Your task to perform on an android device: Clear the shopping cart on newegg. Search for macbook on newegg, select the first entry, add it to the cart, then select checkout. Image 0: 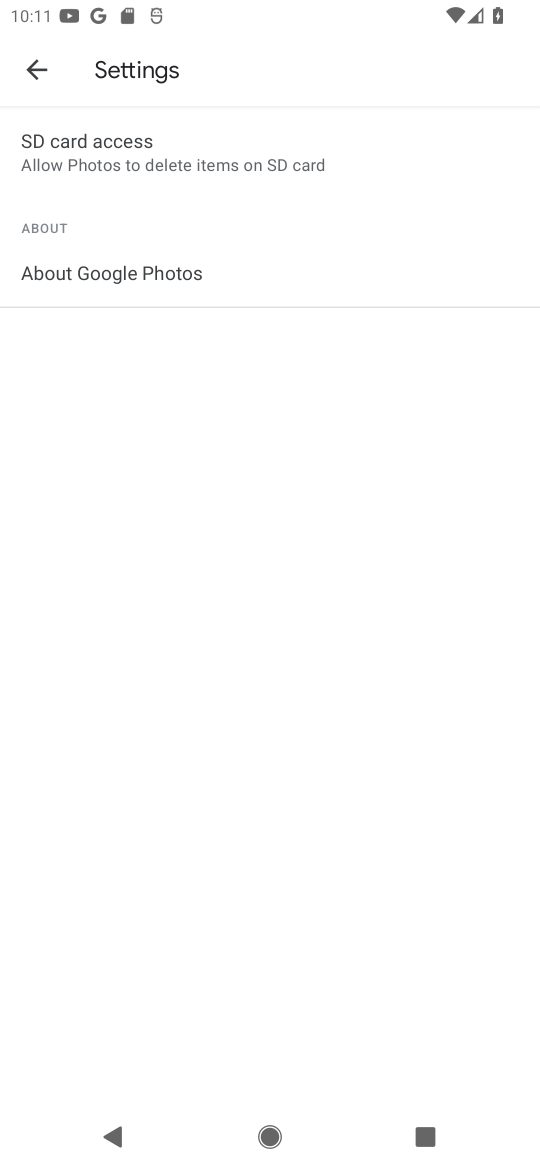
Step 0: press home button
Your task to perform on an android device: Clear the shopping cart on newegg. Search for macbook on newegg, select the first entry, add it to the cart, then select checkout. Image 1: 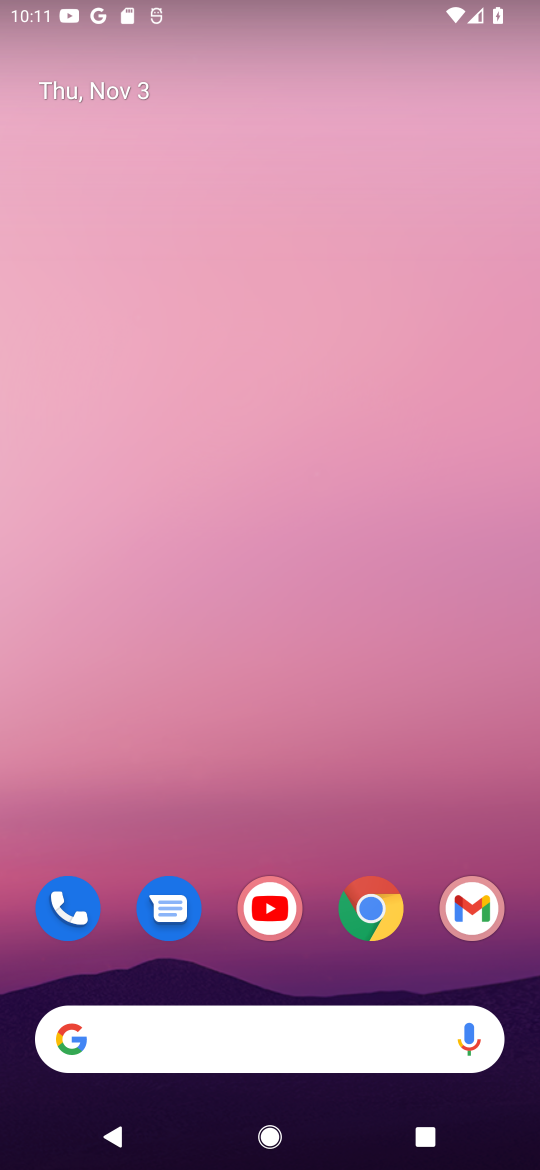
Step 1: click (375, 902)
Your task to perform on an android device: Clear the shopping cart on newegg. Search for macbook on newegg, select the first entry, add it to the cart, then select checkout. Image 2: 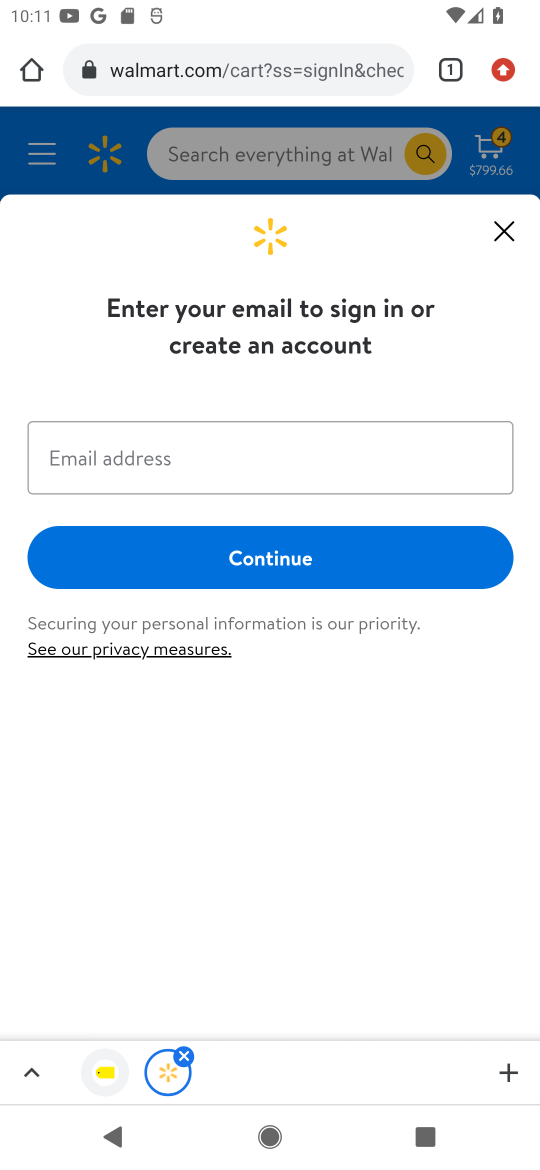
Step 2: click (28, 61)
Your task to perform on an android device: Clear the shopping cart on newegg. Search for macbook on newegg, select the first entry, add it to the cart, then select checkout. Image 3: 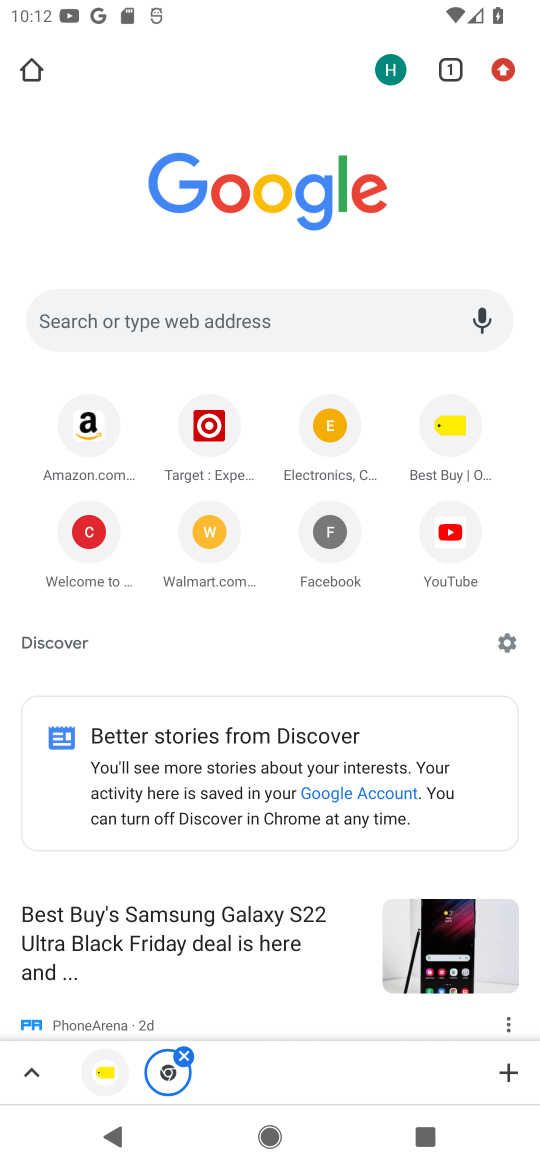
Step 3: click (194, 315)
Your task to perform on an android device: Clear the shopping cart on newegg. Search for macbook on newegg, select the first entry, add it to the cart, then select checkout. Image 4: 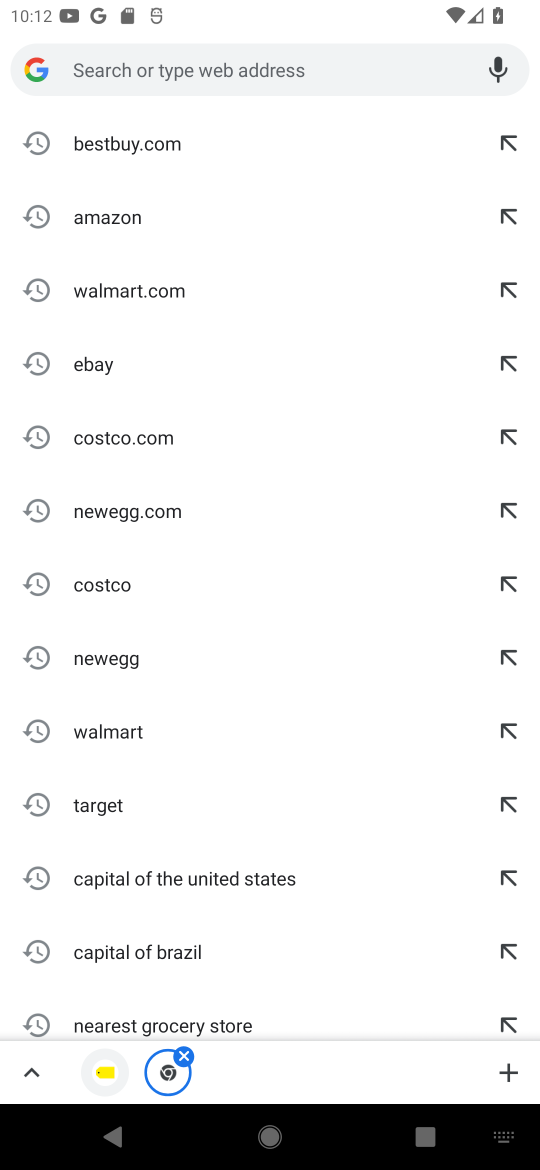
Step 4: click (138, 505)
Your task to perform on an android device: Clear the shopping cart on newegg. Search for macbook on newegg, select the first entry, add it to the cart, then select checkout. Image 5: 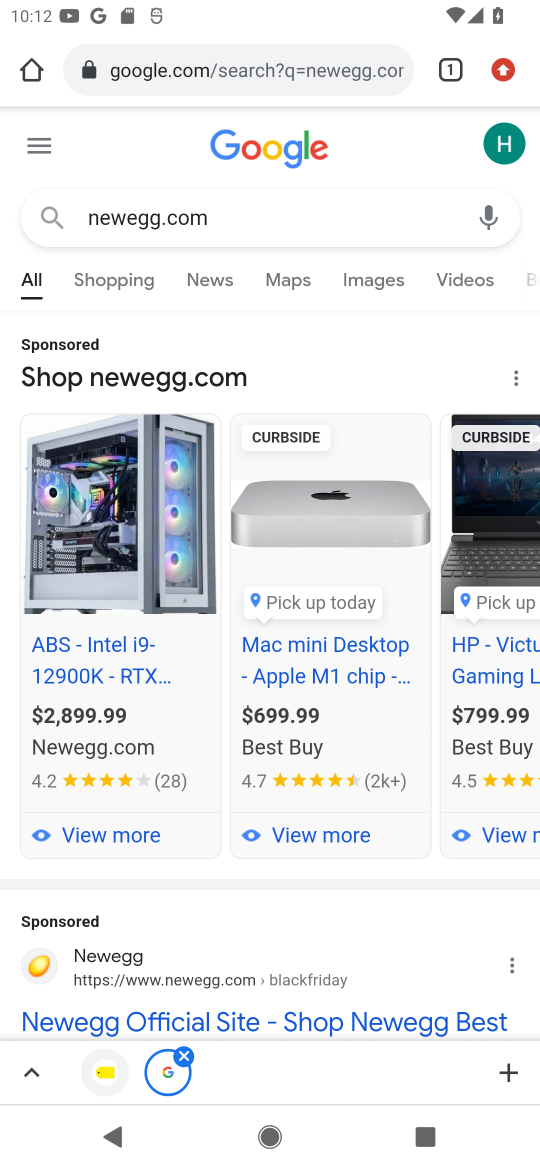
Step 5: click (216, 976)
Your task to perform on an android device: Clear the shopping cart on newegg. Search for macbook on newegg, select the first entry, add it to the cart, then select checkout. Image 6: 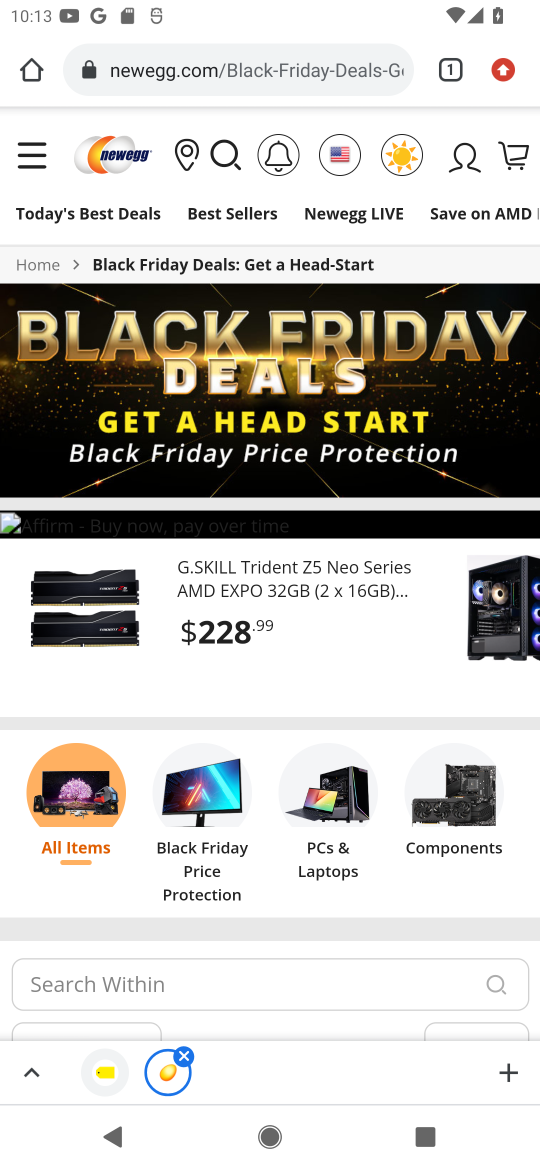
Step 6: click (226, 146)
Your task to perform on an android device: Clear the shopping cart on newegg. Search for macbook on newegg, select the first entry, add it to the cart, then select checkout. Image 7: 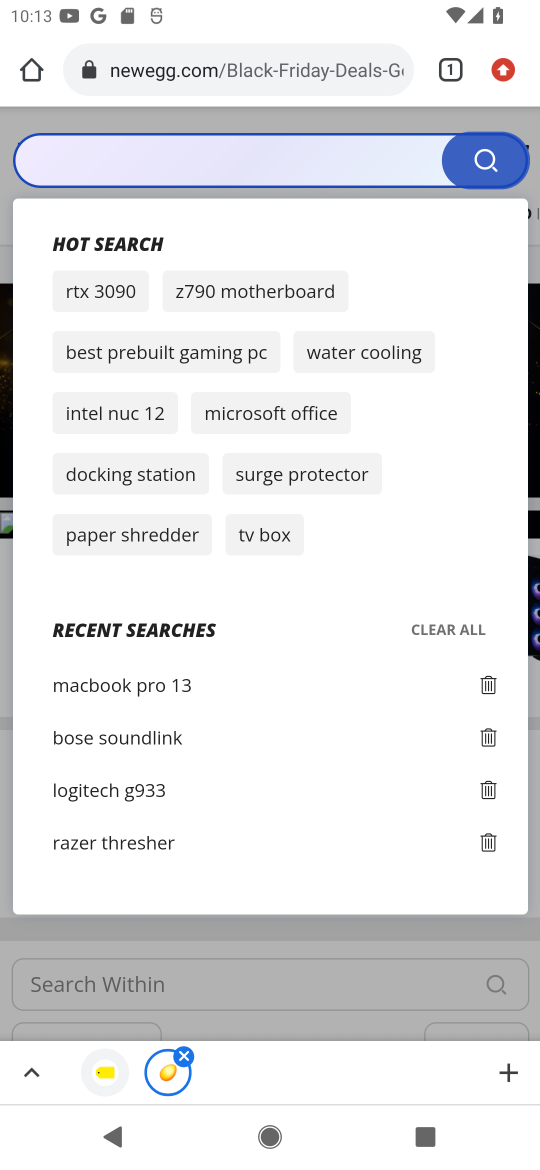
Step 7: click (368, 993)
Your task to perform on an android device: Clear the shopping cart on newegg. Search for macbook on newegg, select the first entry, add it to the cart, then select checkout. Image 8: 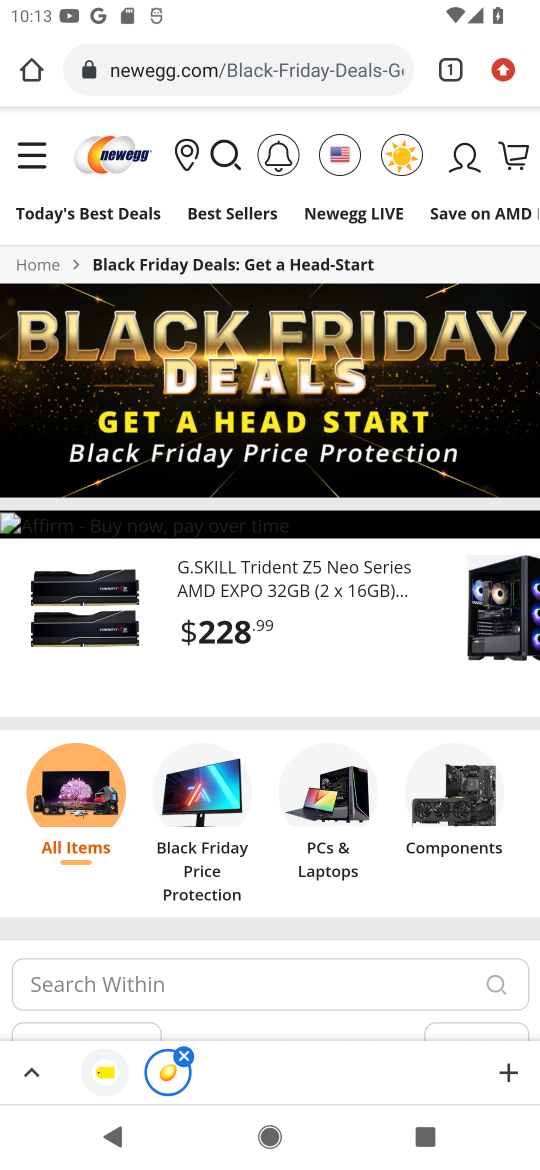
Step 8: click (229, 155)
Your task to perform on an android device: Clear the shopping cart on newegg. Search for macbook on newegg, select the first entry, add it to the cart, then select checkout. Image 9: 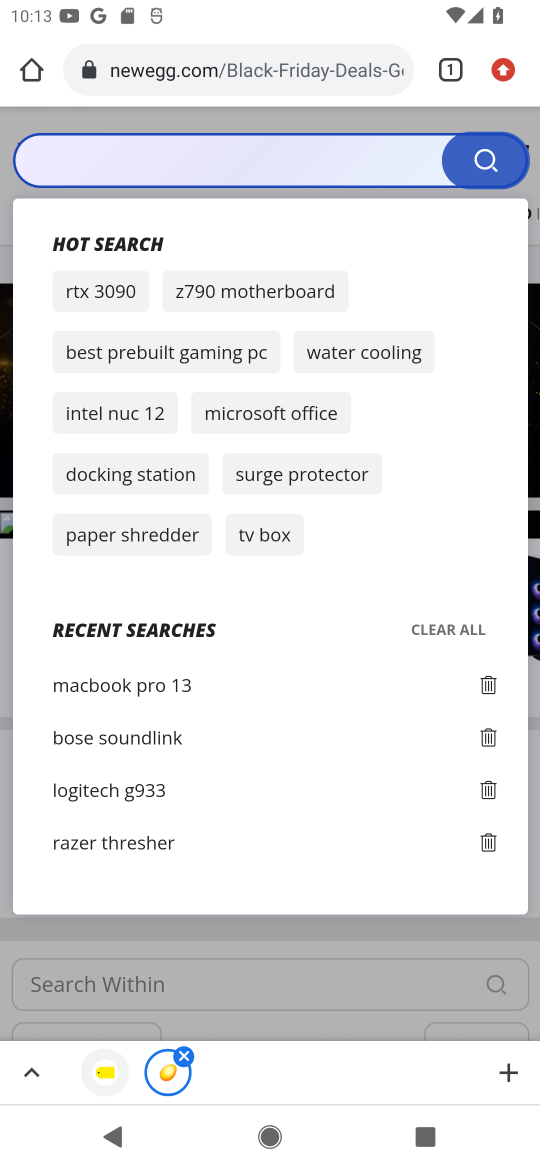
Step 9: type "macbook "
Your task to perform on an android device: Clear the shopping cart on newegg. Search for macbook on newegg, select the first entry, add it to the cart, then select checkout. Image 10: 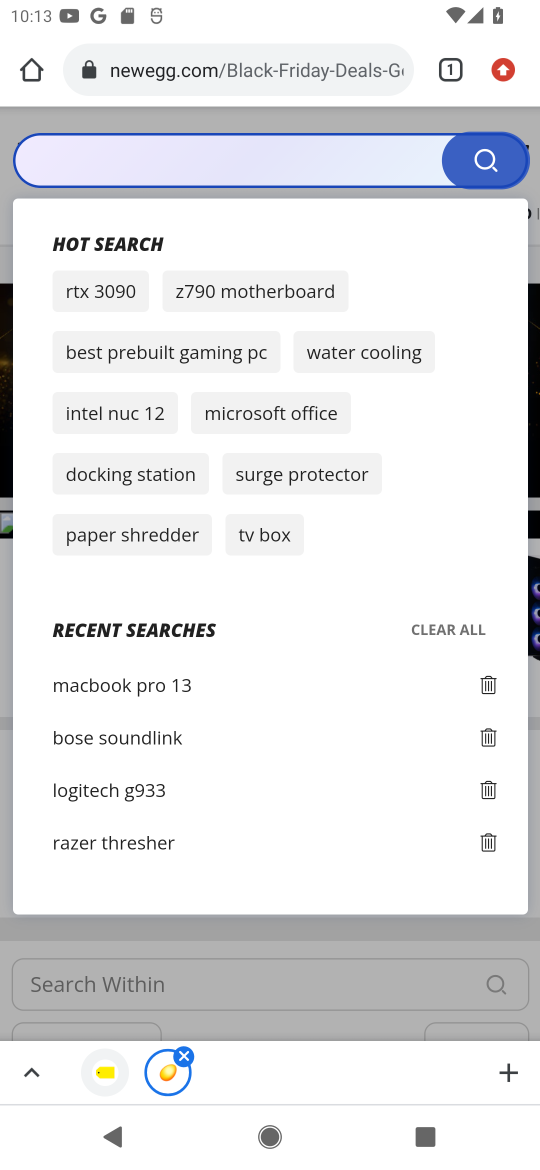
Step 10: press enter
Your task to perform on an android device: Clear the shopping cart on newegg. Search for macbook on newegg, select the first entry, add it to the cart, then select checkout. Image 11: 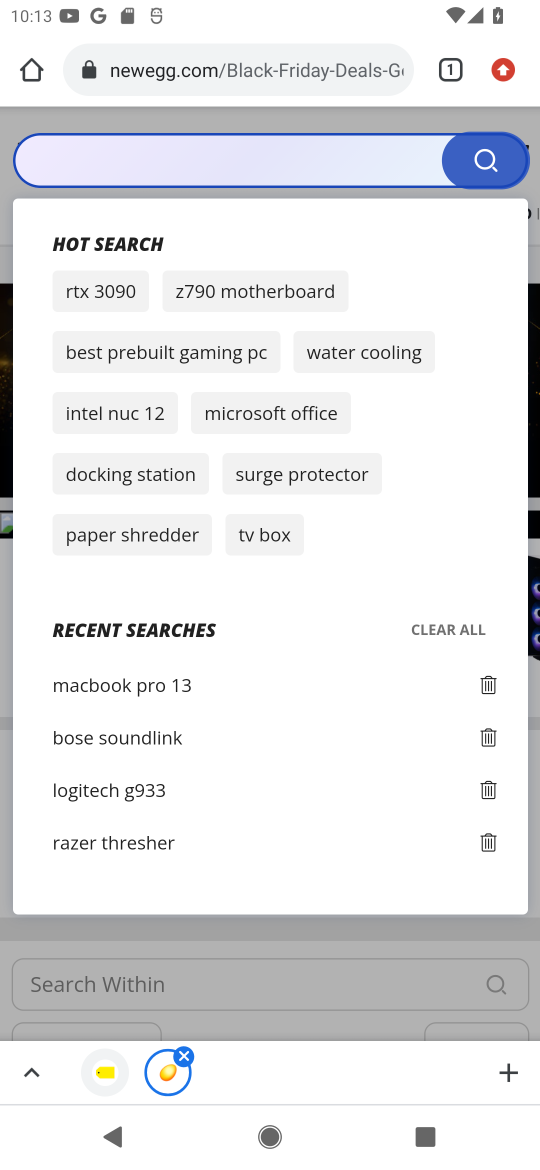
Step 11: task complete